Your task to perform on an android device: Search for energizer triple a on newegg.com, select the first entry, and add it to the cart. Image 0: 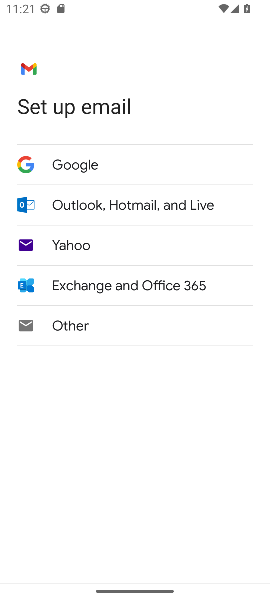
Step 0: press home button
Your task to perform on an android device: Search for energizer triple a on newegg.com, select the first entry, and add it to the cart. Image 1: 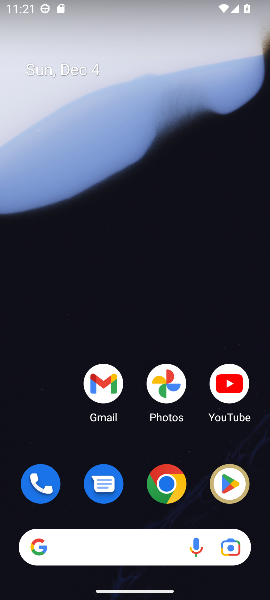
Step 1: click (169, 490)
Your task to perform on an android device: Search for energizer triple a on newegg.com, select the first entry, and add it to the cart. Image 2: 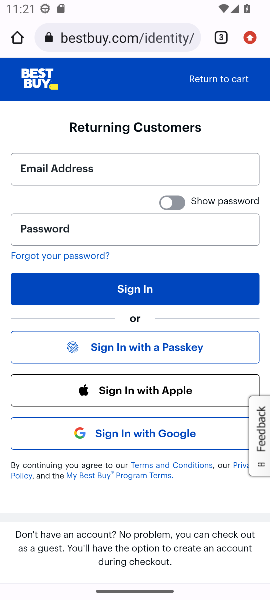
Step 2: click (118, 32)
Your task to perform on an android device: Search for energizer triple a on newegg.com, select the first entry, and add it to the cart. Image 3: 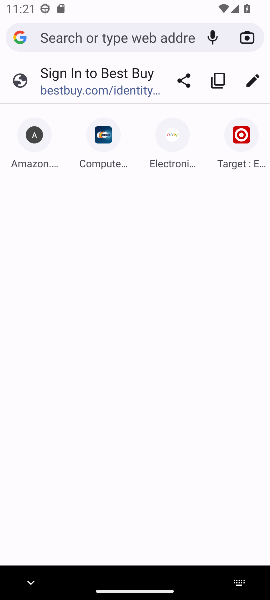
Step 3: click (100, 157)
Your task to perform on an android device: Search for energizer triple a on newegg.com, select the first entry, and add it to the cart. Image 4: 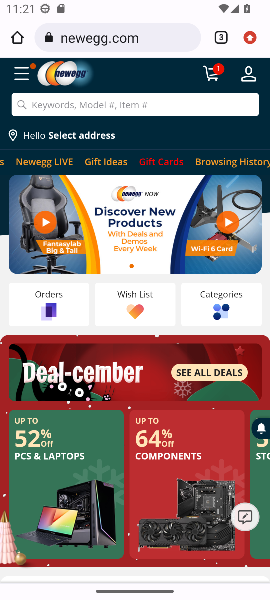
Step 4: click (41, 100)
Your task to perform on an android device: Search for energizer triple a on newegg.com, select the first entry, and add it to the cart. Image 5: 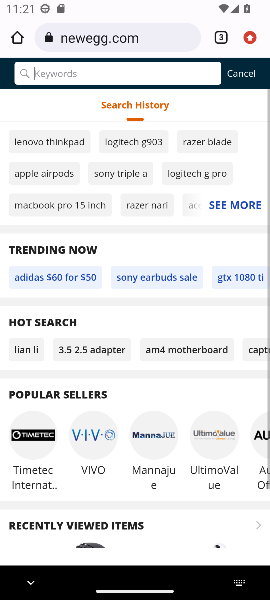
Step 5: type "energizer triple a"
Your task to perform on an android device: Search for energizer triple a on newegg.com, select the first entry, and add it to the cart. Image 6: 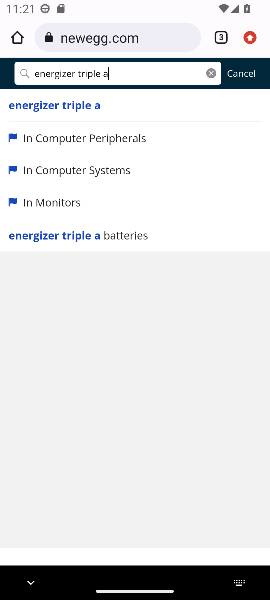
Step 6: click (82, 111)
Your task to perform on an android device: Search for energizer triple a on newegg.com, select the first entry, and add it to the cart. Image 7: 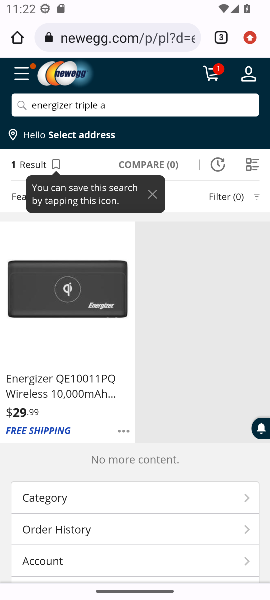
Step 7: task complete